Your task to perform on an android device: make emails show in primary in the gmail app Image 0: 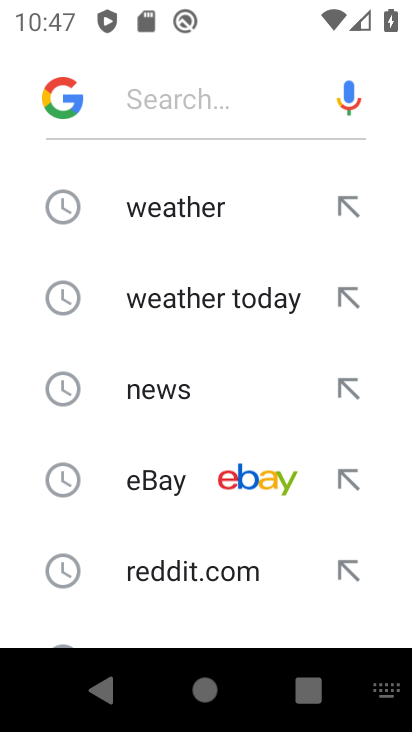
Step 0: press home button
Your task to perform on an android device: make emails show in primary in the gmail app Image 1: 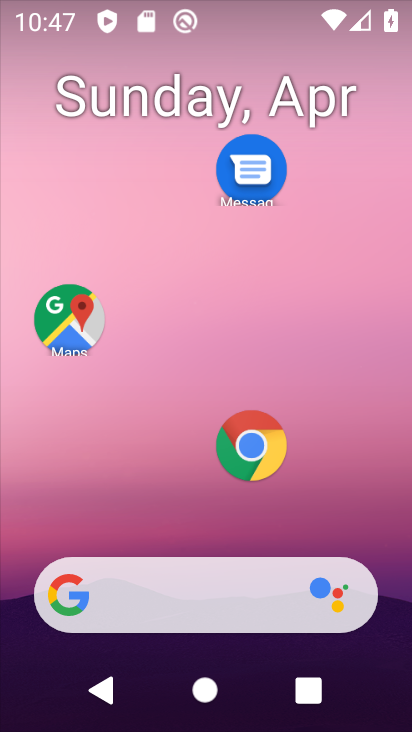
Step 1: drag from (192, 584) to (332, 96)
Your task to perform on an android device: make emails show in primary in the gmail app Image 2: 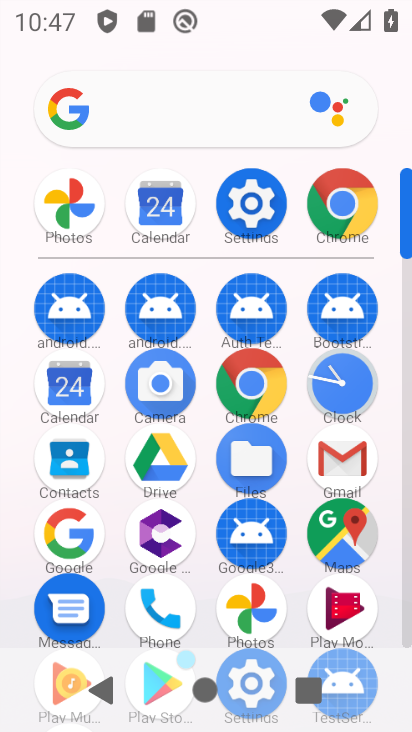
Step 2: click (343, 464)
Your task to perform on an android device: make emails show in primary in the gmail app Image 3: 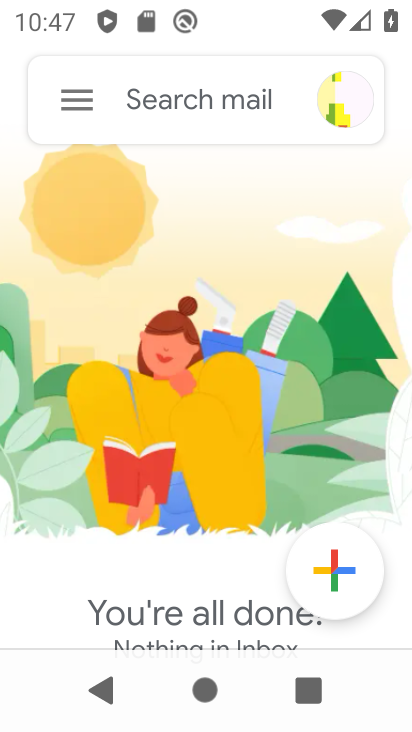
Step 3: click (83, 99)
Your task to perform on an android device: make emails show in primary in the gmail app Image 4: 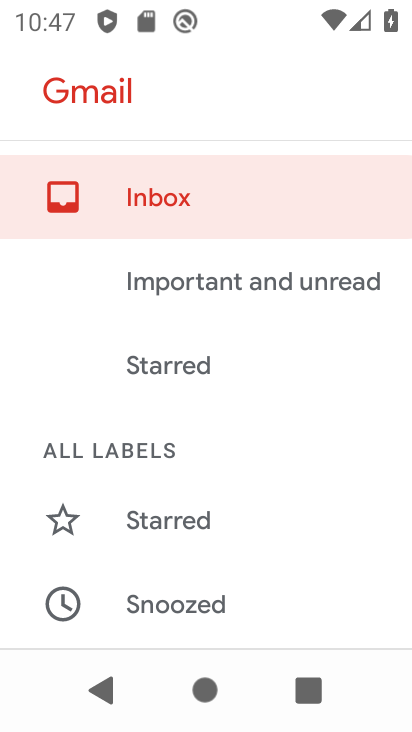
Step 4: drag from (237, 542) to (353, 85)
Your task to perform on an android device: make emails show in primary in the gmail app Image 5: 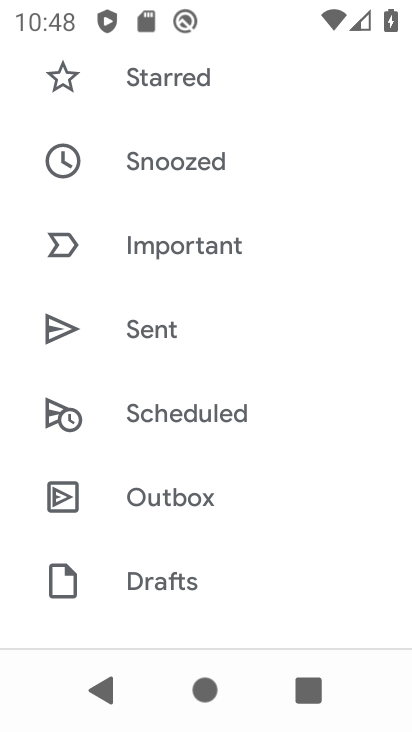
Step 5: drag from (213, 601) to (375, 62)
Your task to perform on an android device: make emails show in primary in the gmail app Image 6: 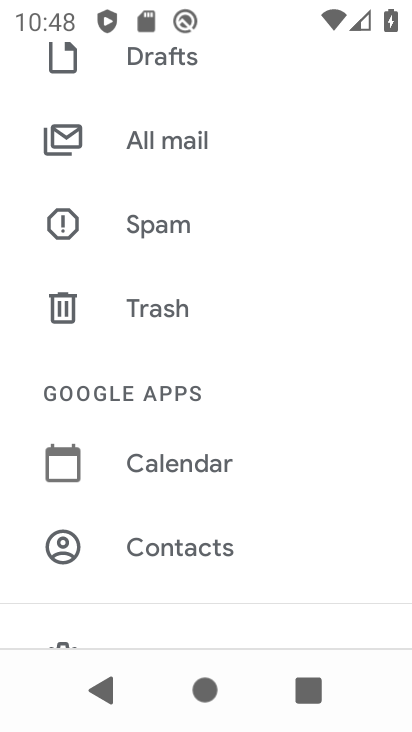
Step 6: drag from (183, 566) to (335, 86)
Your task to perform on an android device: make emails show in primary in the gmail app Image 7: 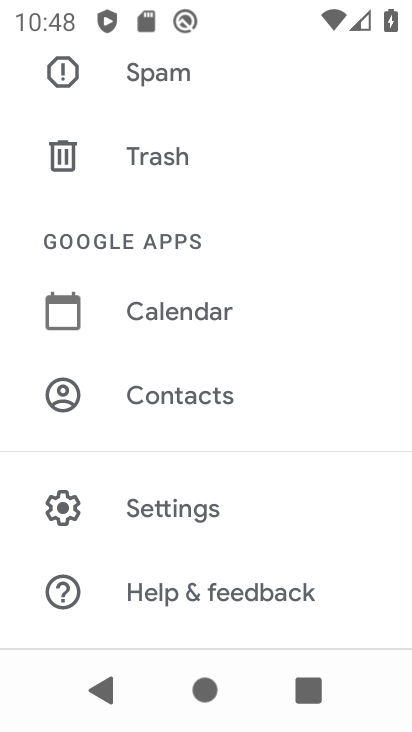
Step 7: click (162, 510)
Your task to perform on an android device: make emails show in primary in the gmail app Image 8: 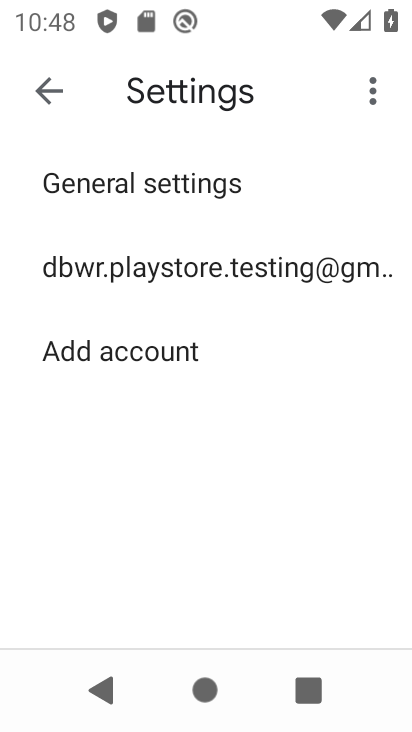
Step 8: click (246, 249)
Your task to perform on an android device: make emails show in primary in the gmail app Image 9: 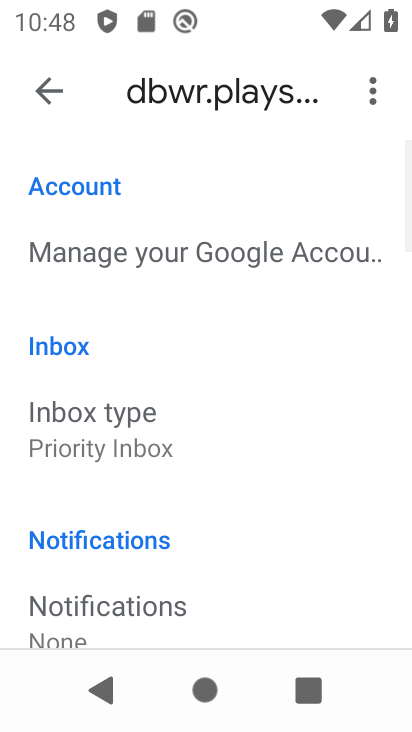
Step 9: task complete